Your task to perform on an android device: Do I have any events this weekend? Image 0: 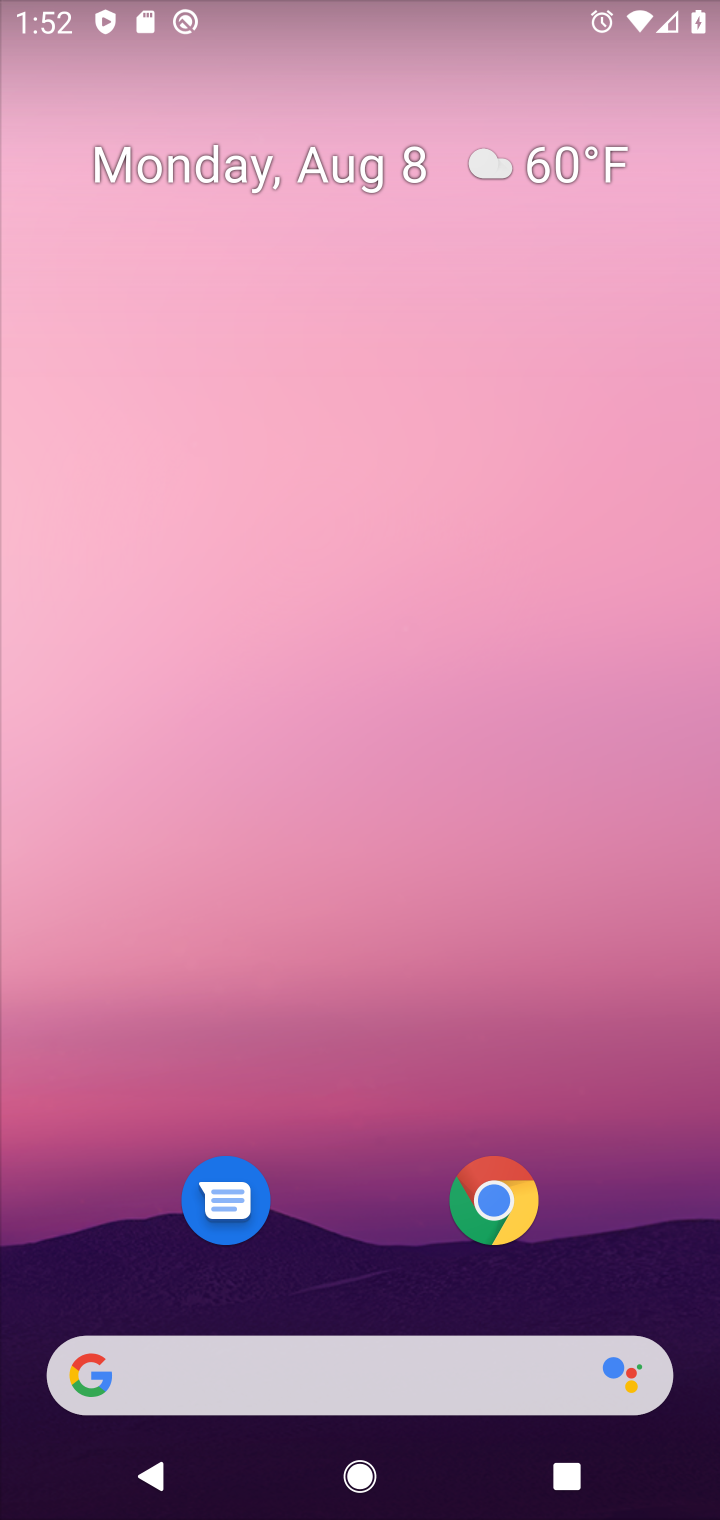
Step 0: drag from (360, 1274) to (408, 100)
Your task to perform on an android device: Do I have any events this weekend? Image 1: 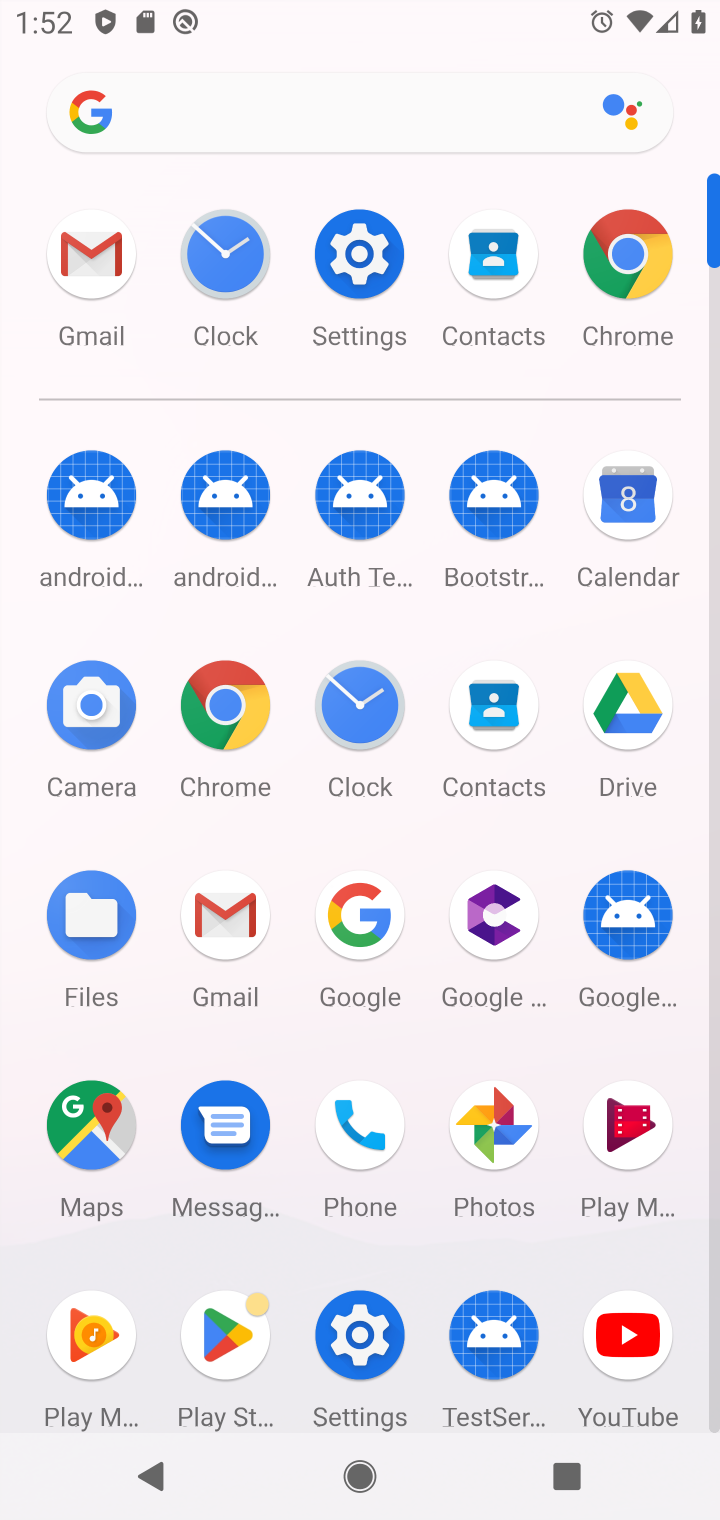
Step 1: click (623, 491)
Your task to perform on an android device: Do I have any events this weekend? Image 2: 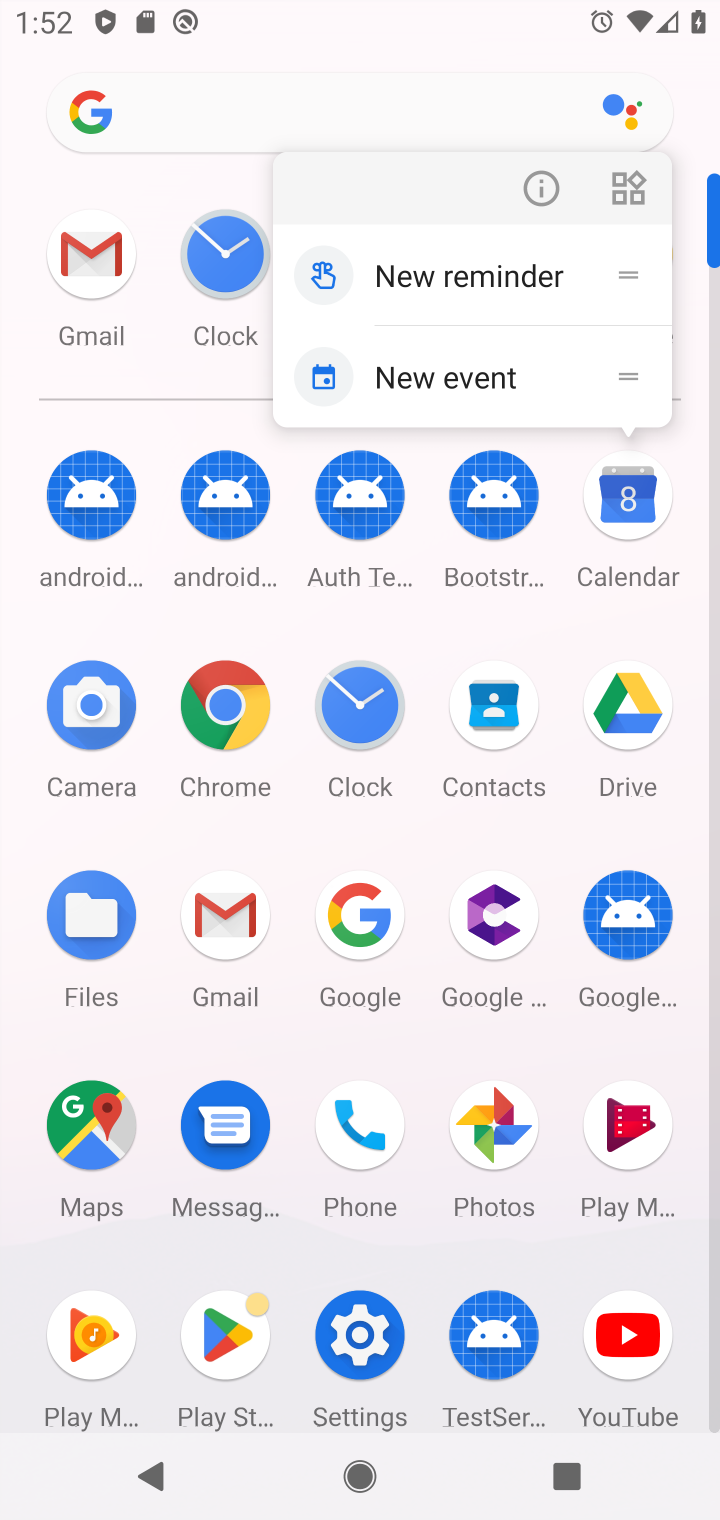
Step 2: click (621, 493)
Your task to perform on an android device: Do I have any events this weekend? Image 3: 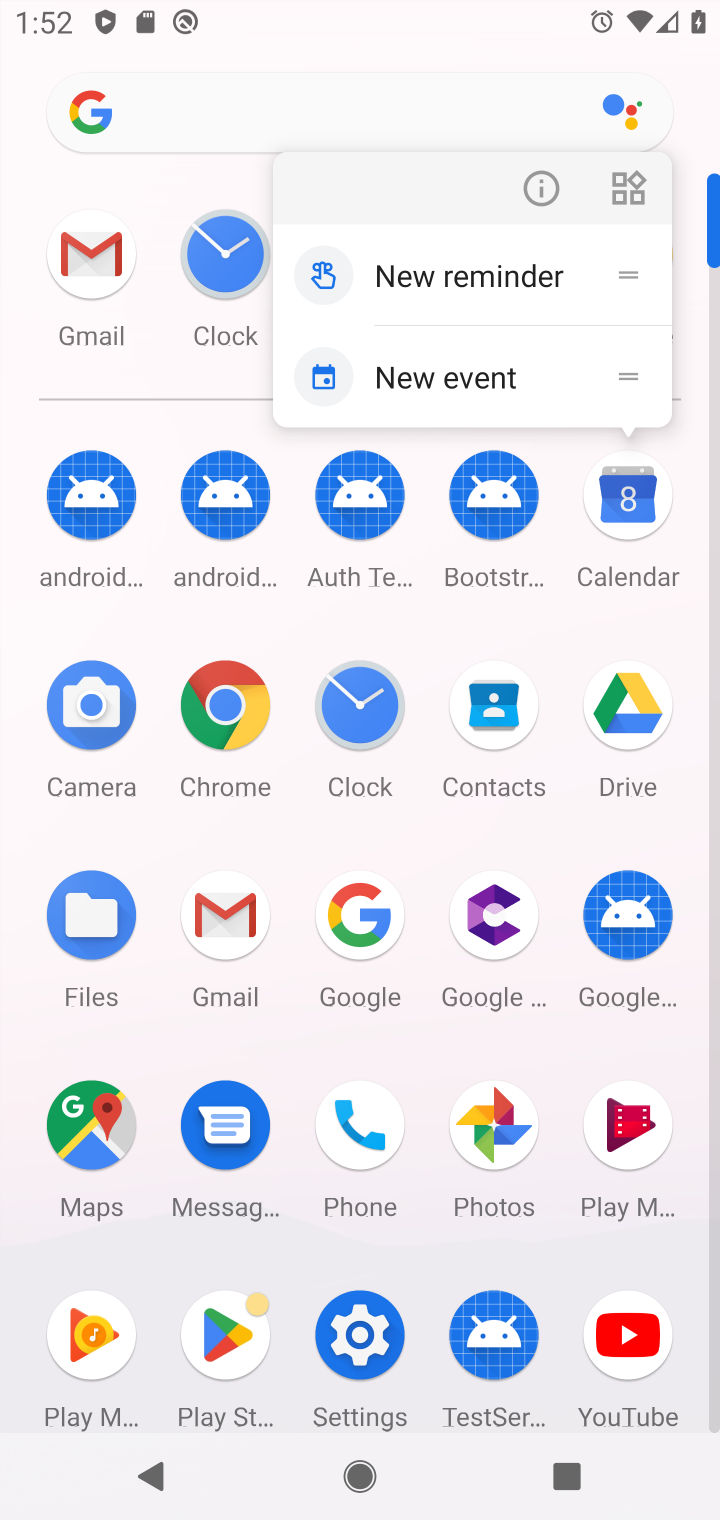
Step 3: click (621, 493)
Your task to perform on an android device: Do I have any events this weekend? Image 4: 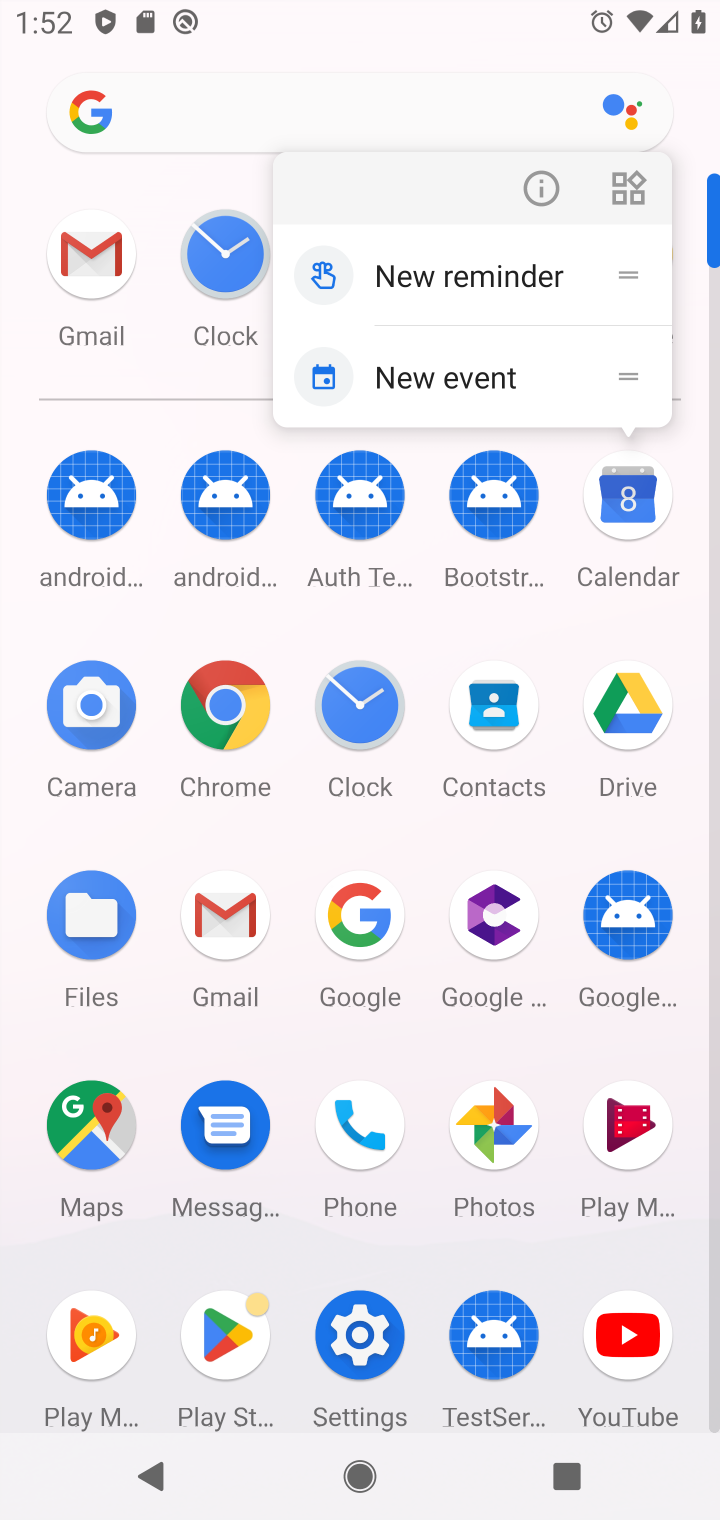
Step 4: click (621, 493)
Your task to perform on an android device: Do I have any events this weekend? Image 5: 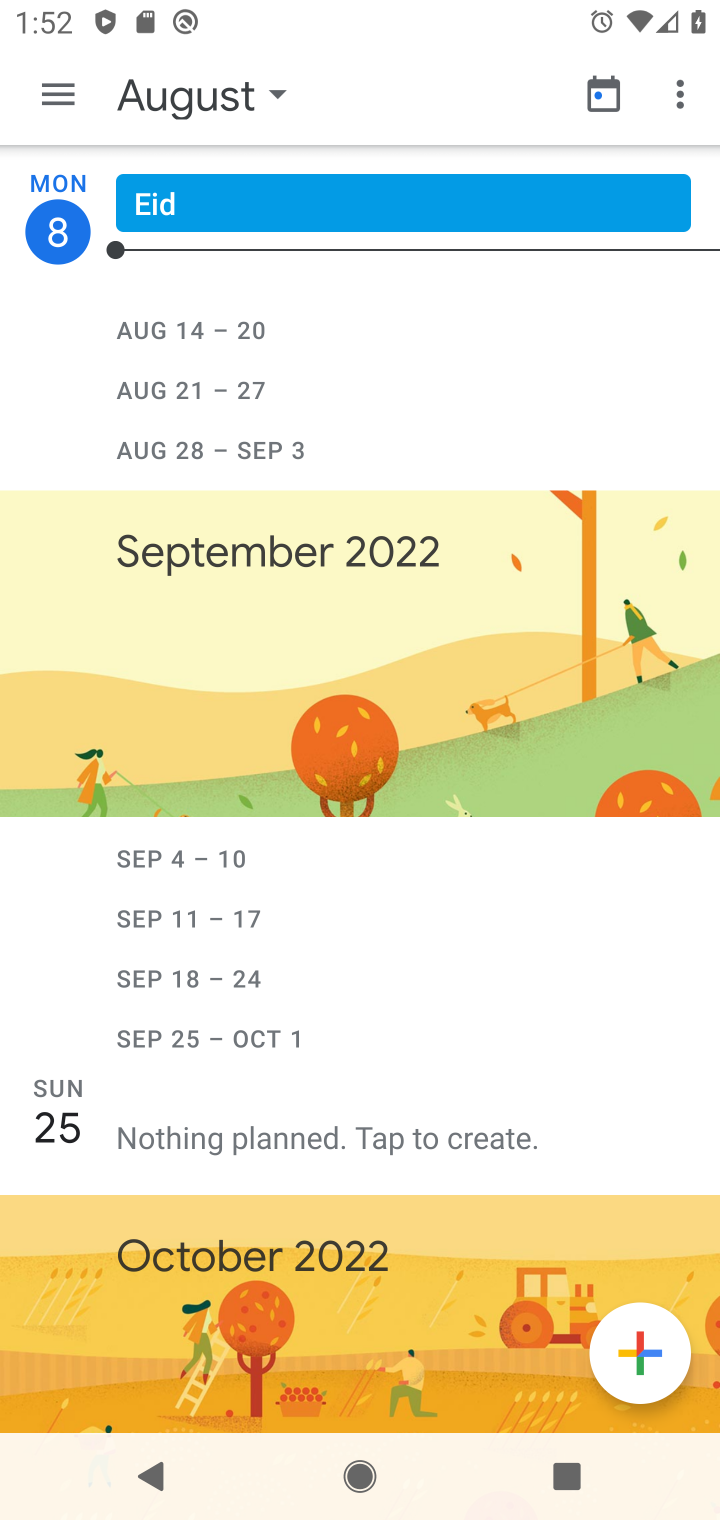
Step 5: click (278, 99)
Your task to perform on an android device: Do I have any events this weekend? Image 6: 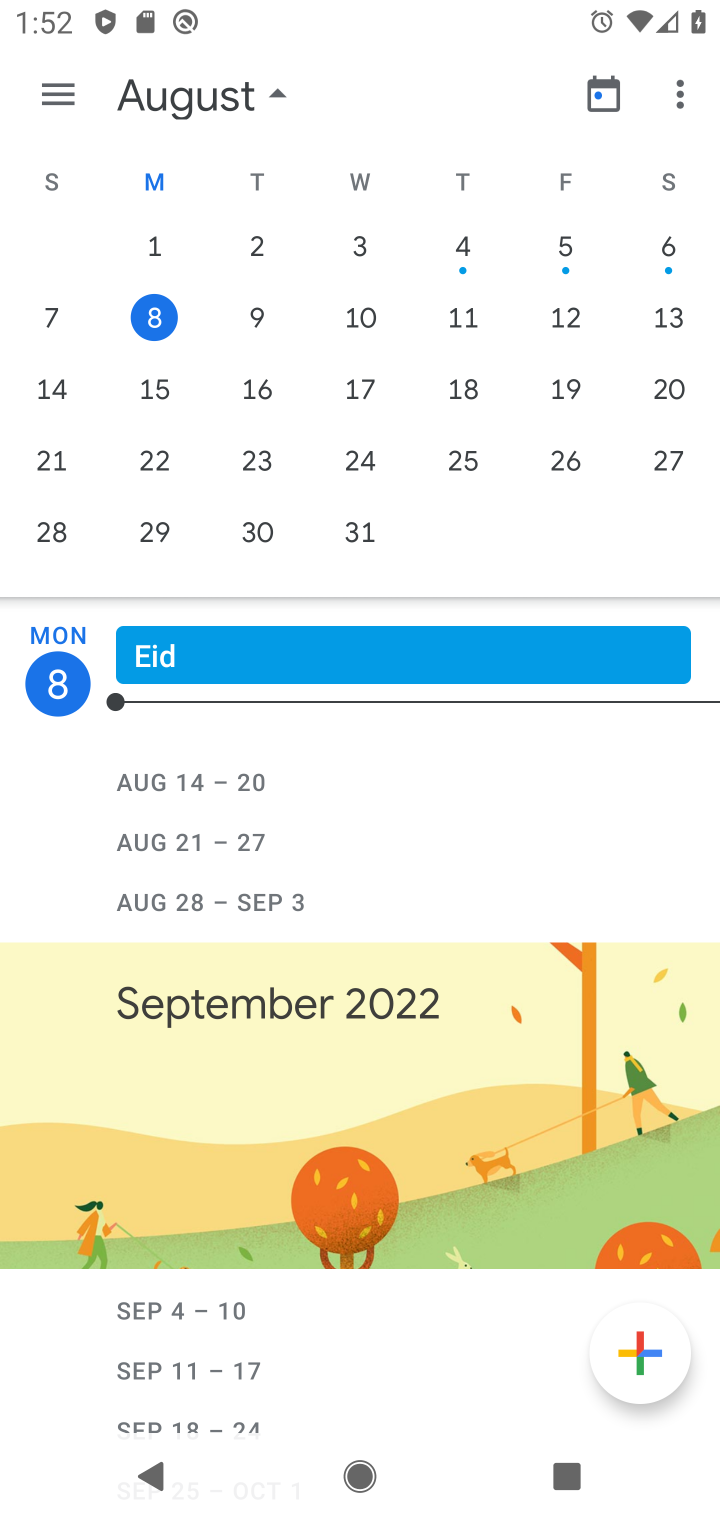
Step 6: click (56, 83)
Your task to perform on an android device: Do I have any events this weekend? Image 7: 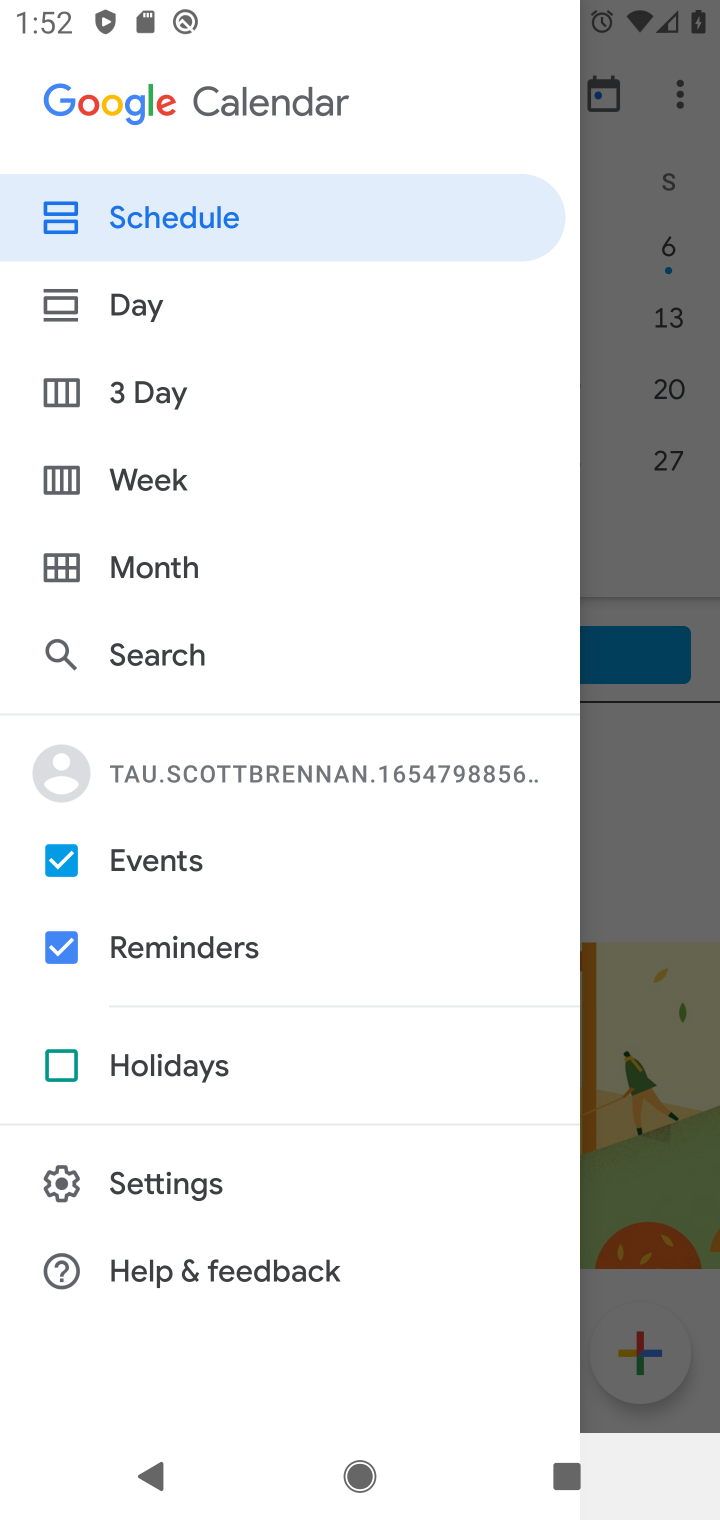
Step 7: click (205, 474)
Your task to perform on an android device: Do I have any events this weekend? Image 8: 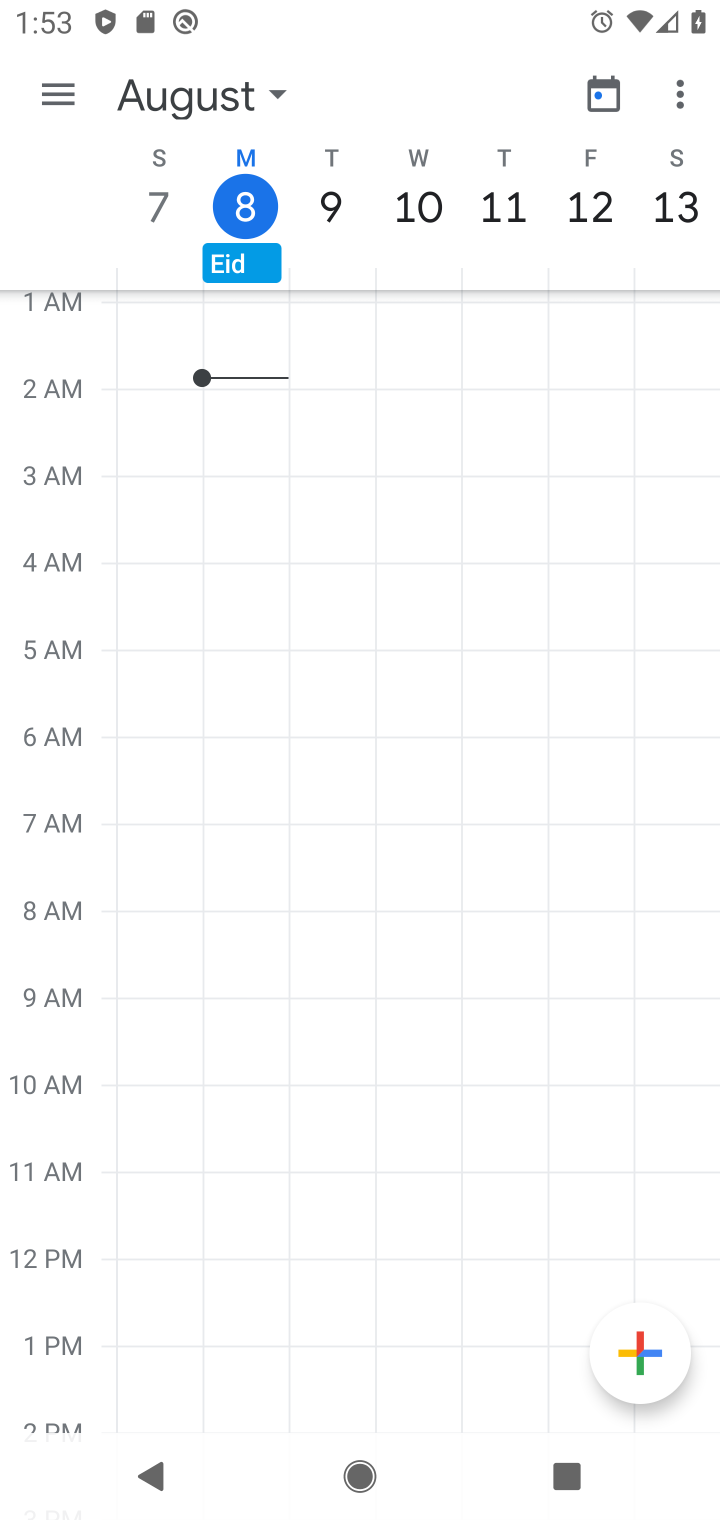
Step 8: click (67, 94)
Your task to perform on an android device: Do I have any events this weekend? Image 9: 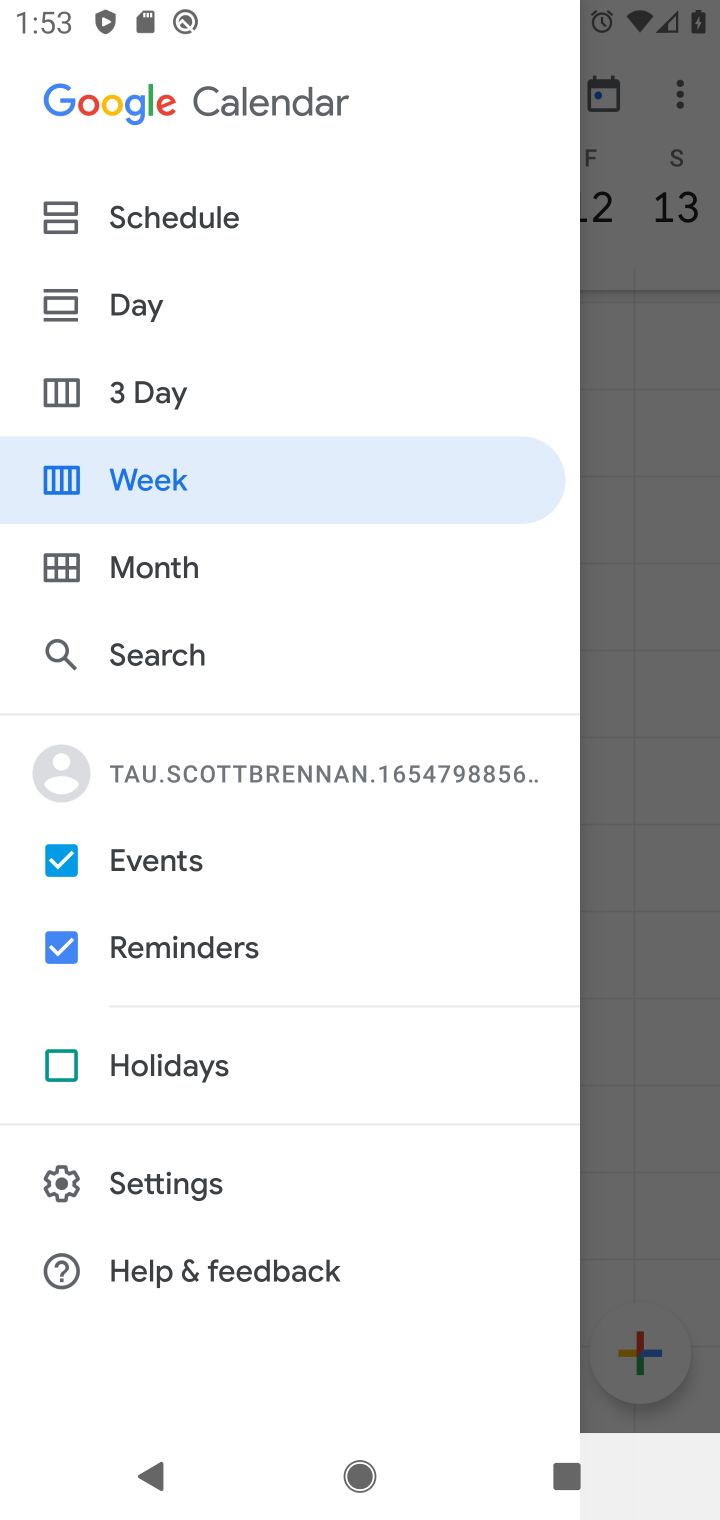
Step 9: click (216, 480)
Your task to perform on an android device: Do I have any events this weekend? Image 10: 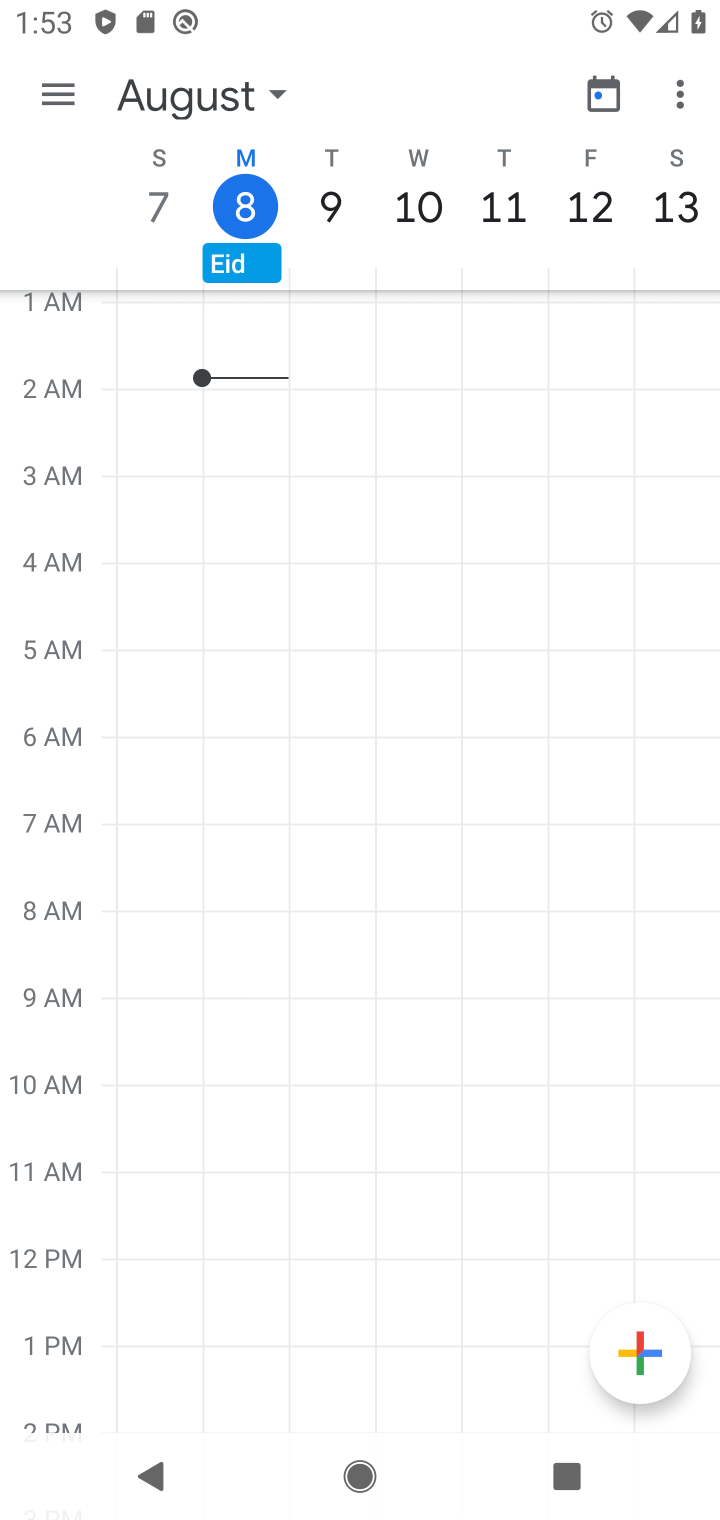
Step 10: click (248, 194)
Your task to perform on an android device: Do I have any events this weekend? Image 11: 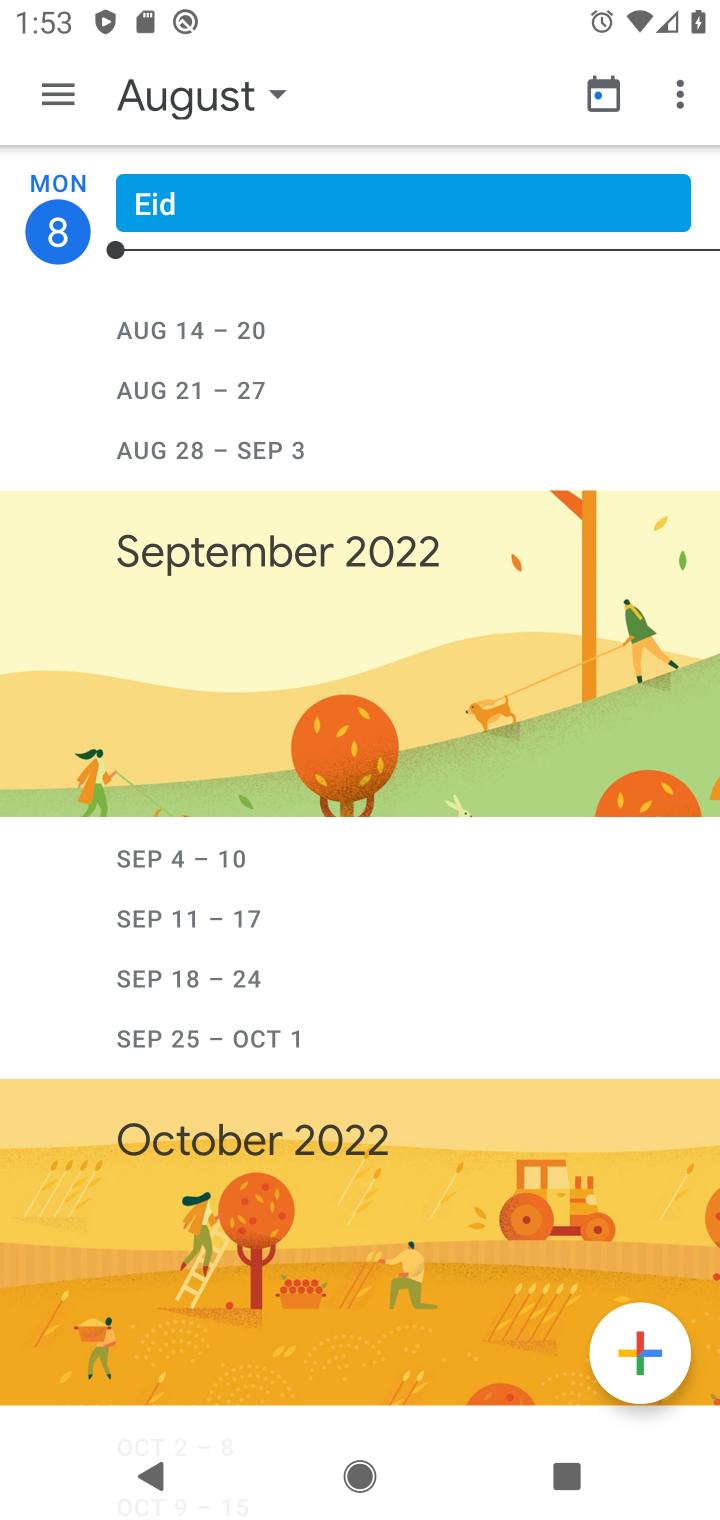
Step 11: click (72, 242)
Your task to perform on an android device: Do I have any events this weekend? Image 12: 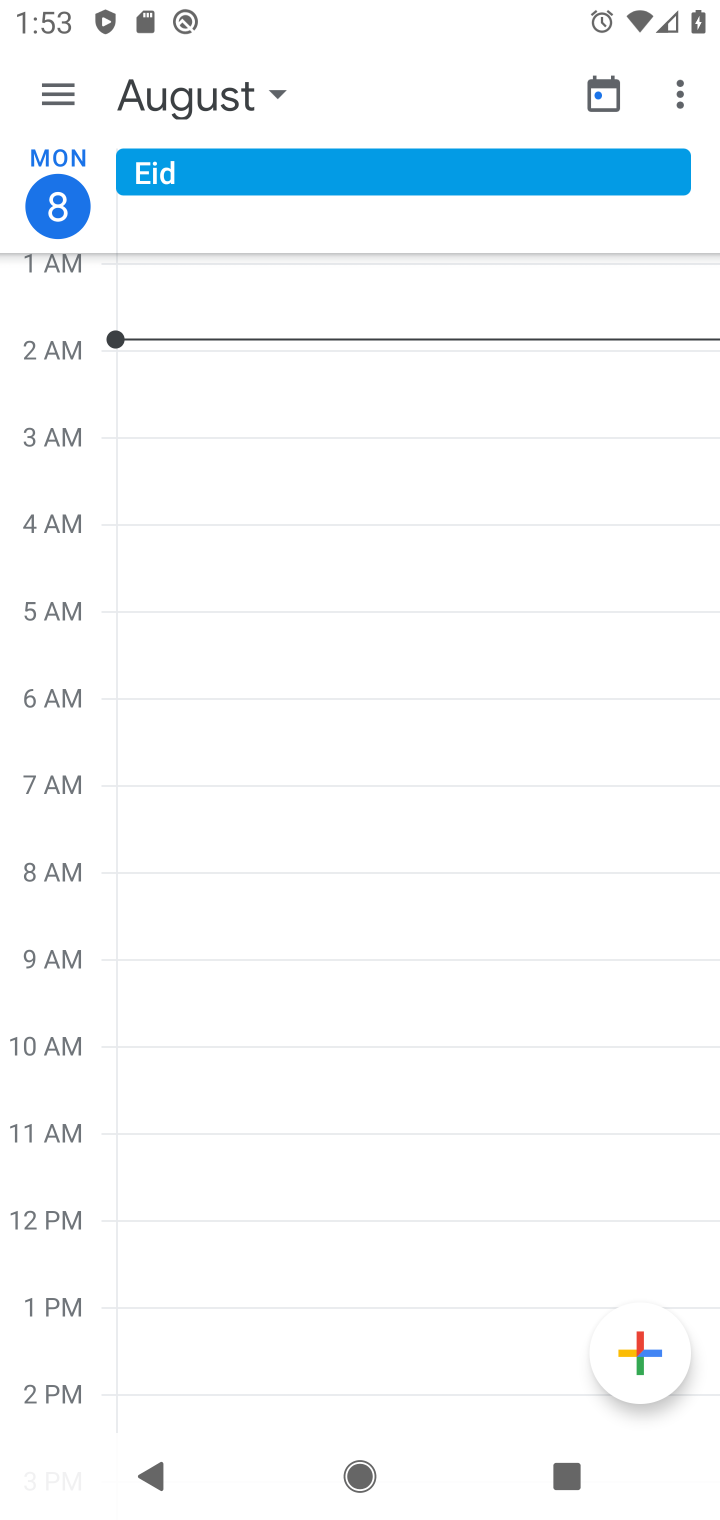
Step 12: task complete